Your task to perform on an android device: turn off javascript in the chrome app Image 0: 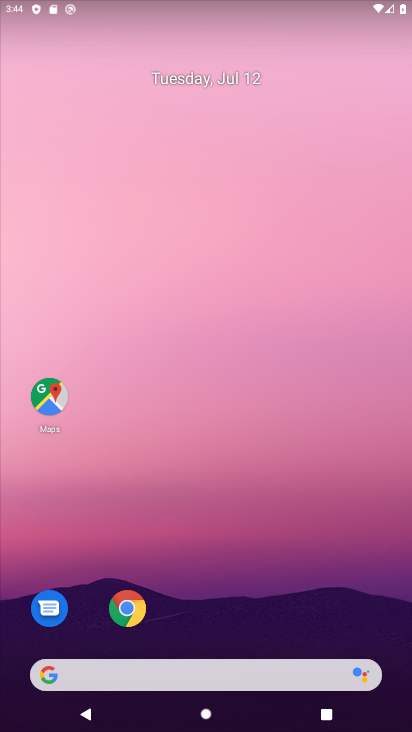
Step 0: click (128, 603)
Your task to perform on an android device: turn off javascript in the chrome app Image 1: 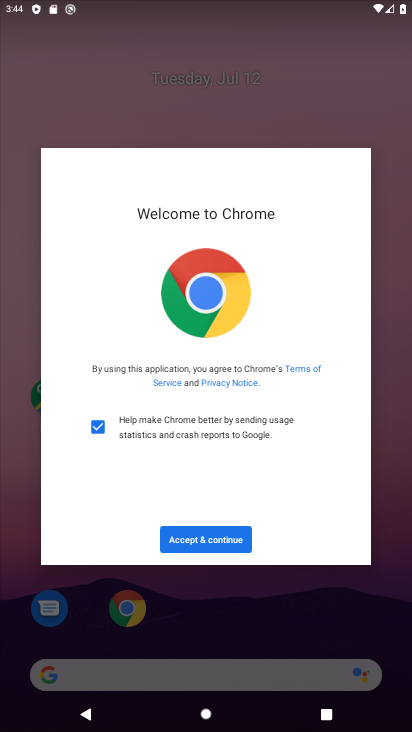
Step 1: click (205, 551)
Your task to perform on an android device: turn off javascript in the chrome app Image 2: 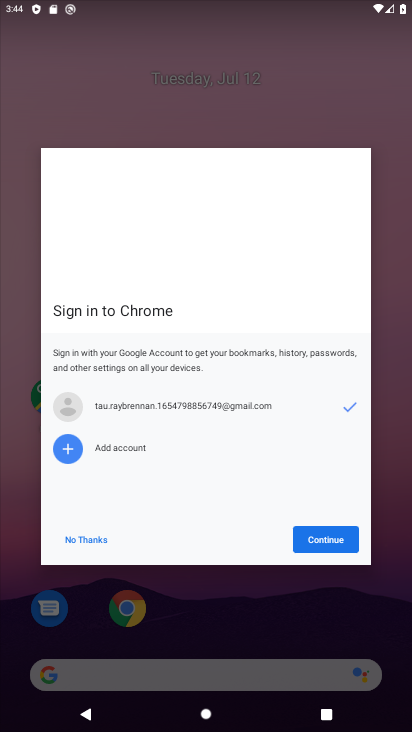
Step 2: click (316, 539)
Your task to perform on an android device: turn off javascript in the chrome app Image 3: 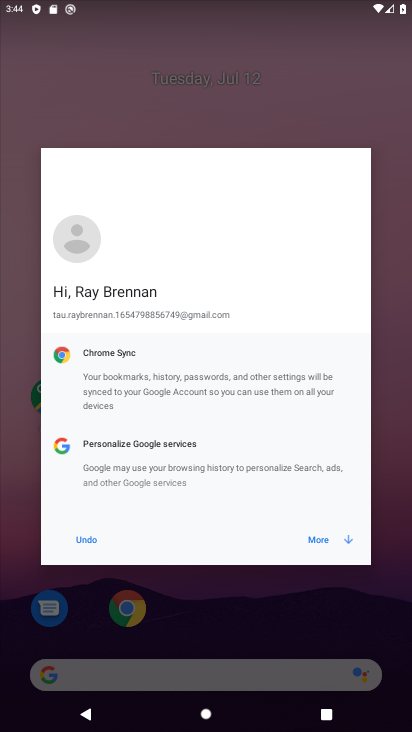
Step 3: click (319, 538)
Your task to perform on an android device: turn off javascript in the chrome app Image 4: 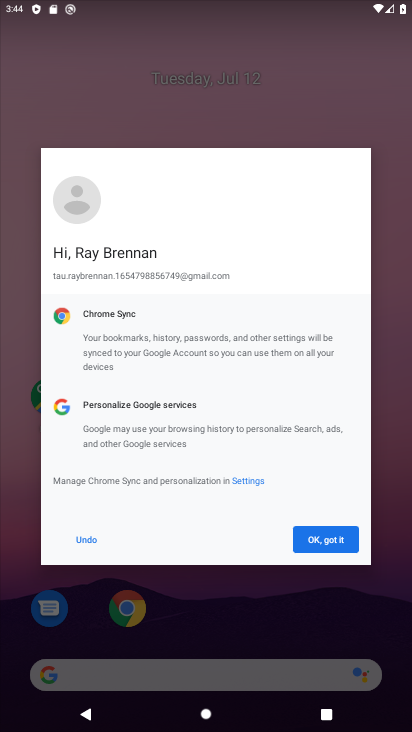
Step 4: click (319, 538)
Your task to perform on an android device: turn off javascript in the chrome app Image 5: 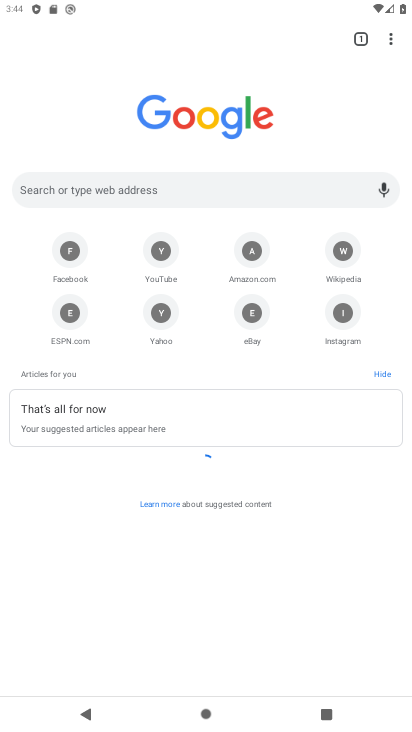
Step 5: click (392, 36)
Your task to perform on an android device: turn off javascript in the chrome app Image 6: 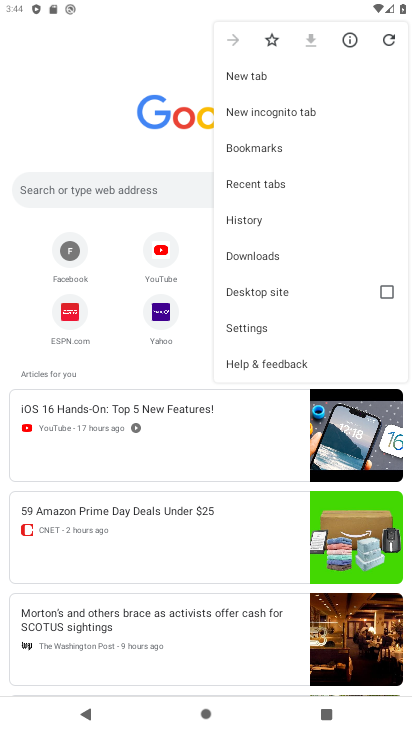
Step 6: click (234, 320)
Your task to perform on an android device: turn off javascript in the chrome app Image 7: 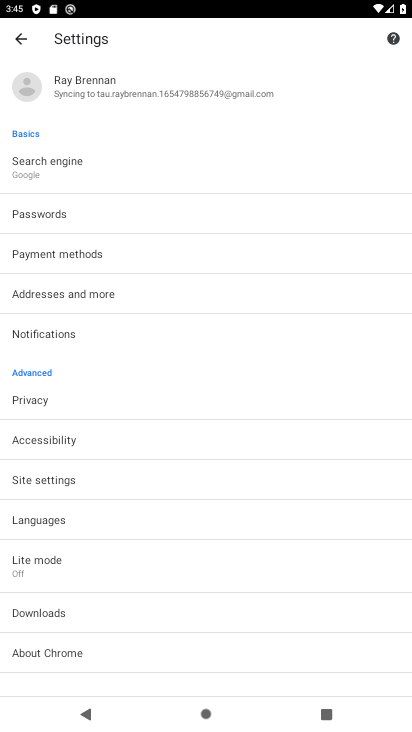
Step 7: click (95, 483)
Your task to perform on an android device: turn off javascript in the chrome app Image 8: 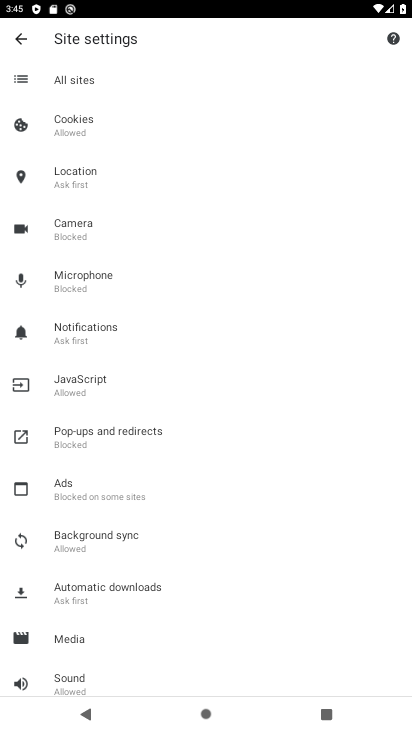
Step 8: click (101, 376)
Your task to perform on an android device: turn off javascript in the chrome app Image 9: 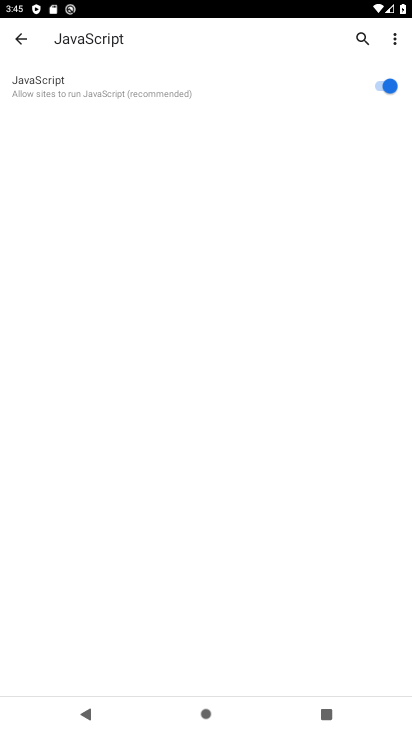
Step 9: click (381, 75)
Your task to perform on an android device: turn off javascript in the chrome app Image 10: 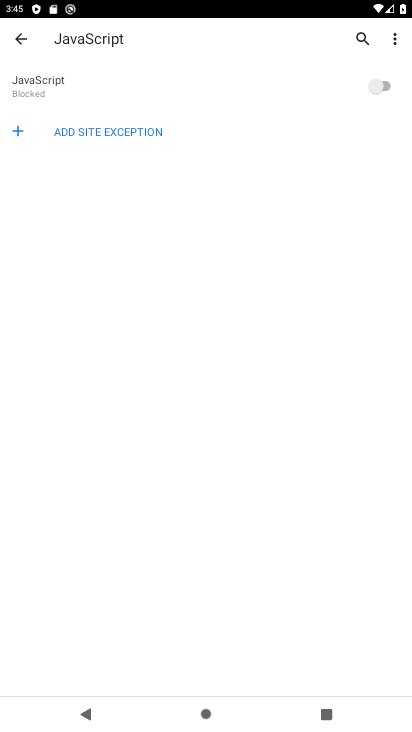
Step 10: task complete